Your task to perform on an android device: Open CNN.com Image 0: 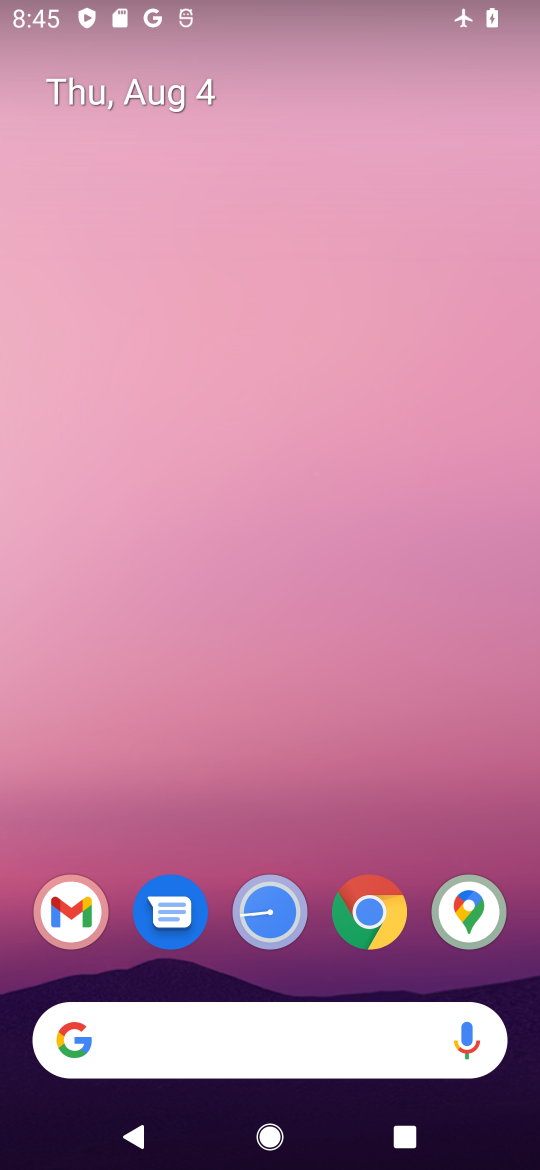
Step 0: click (367, 920)
Your task to perform on an android device: Open CNN.com Image 1: 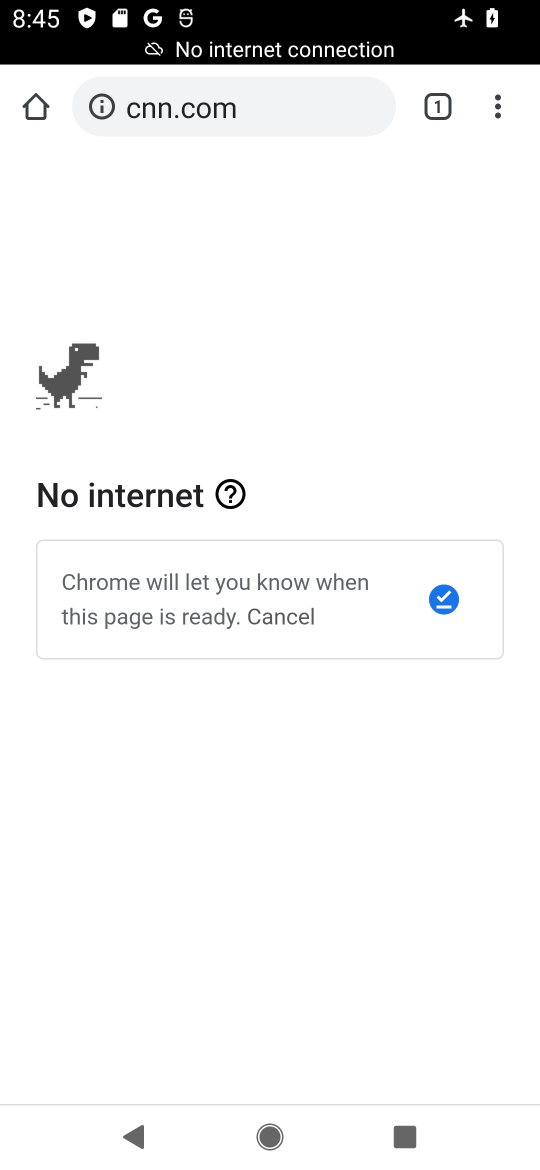
Step 1: task complete